Your task to perform on an android device: allow notifications from all sites in the chrome app Image 0: 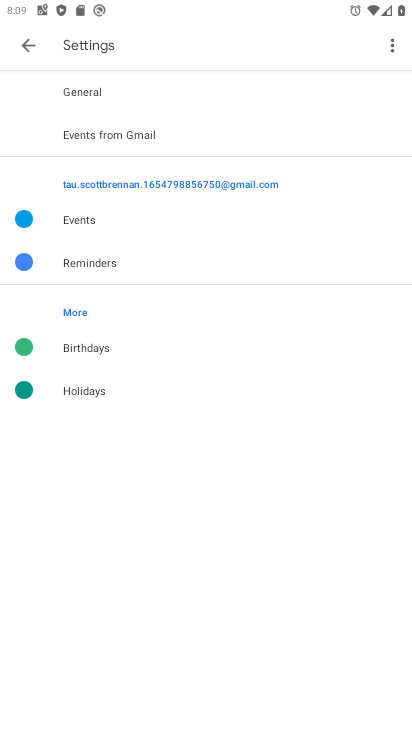
Step 0: press home button
Your task to perform on an android device: allow notifications from all sites in the chrome app Image 1: 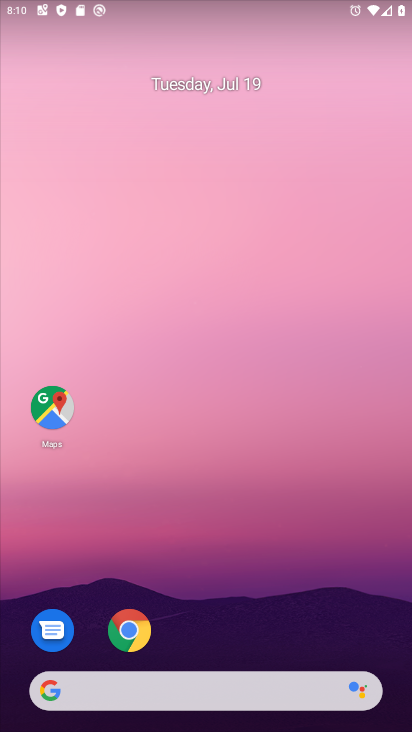
Step 1: click (126, 639)
Your task to perform on an android device: allow notifications from all sites in the chrome app Image 2: 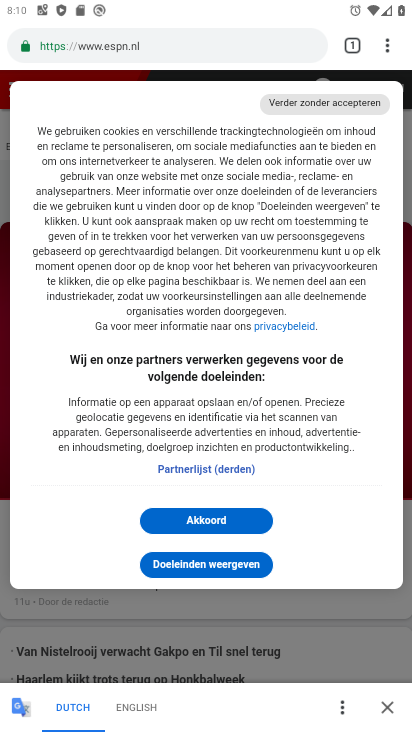
Step 2: click (388, 48)
Your task to perform on an android device: allow notifications from all sites in the chrome app Image 3: 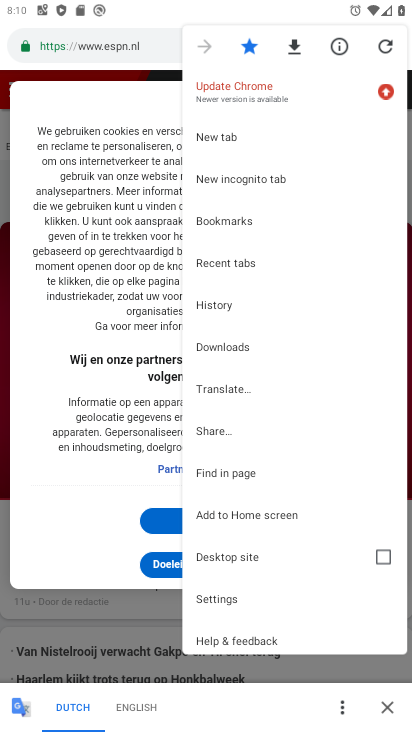
Step 3: click (221, 595)
Your task to perform on an android device: allow notifications from all sites in the chrome app Image 4: 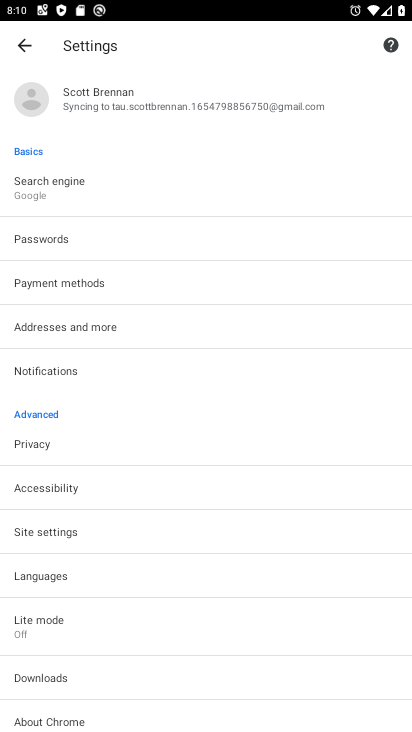
Step 4: click (44, 528)
Your task to perform on an android device: allow notifications from all sites in the chrome app Image 5: 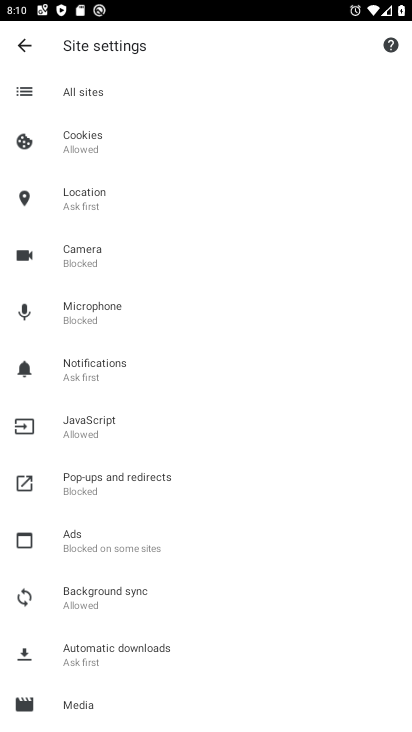
Step 5: click (91, 372)
Your task to perform on an android device: allow notifications from all sites in the chrome app Image 6: 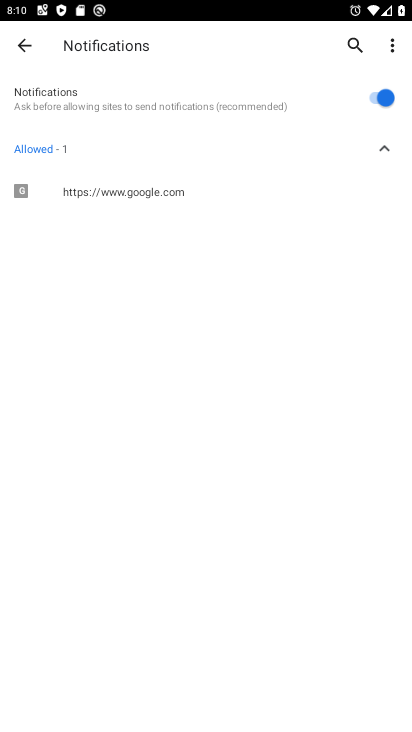
Step 6: task complete